Your task to perform on an android device: Open calendar and show me the second week of next month Image 0: 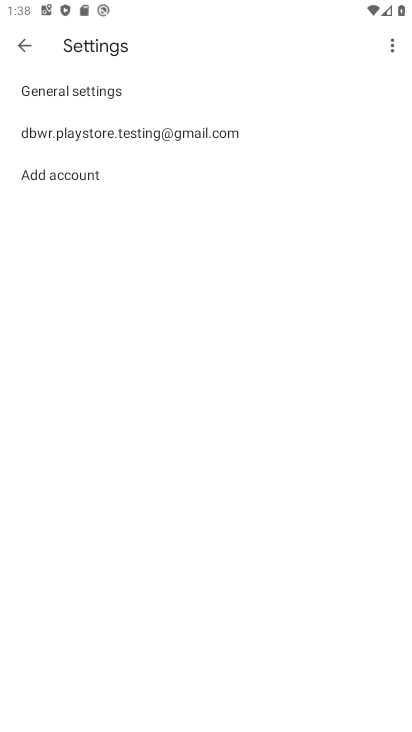
Step 0: press back button
Your task to perform on an android device: Open calendar and show me the second week of next month Image 1: 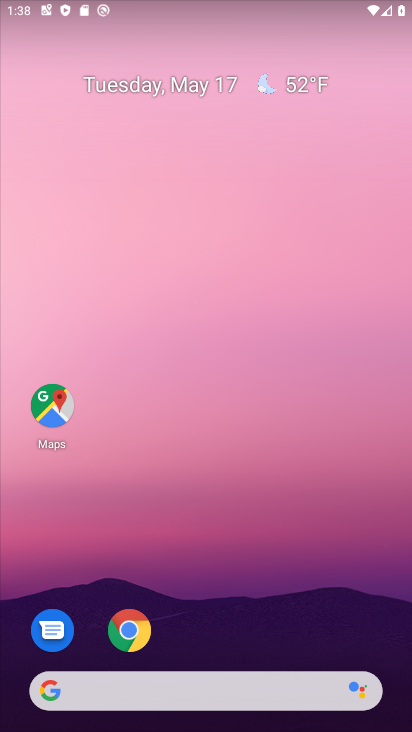
Step 1: drag from (218, 626) to (322, 157)
Your task to perform on an android device: Open calendar and show me the second week of next month Image 2: 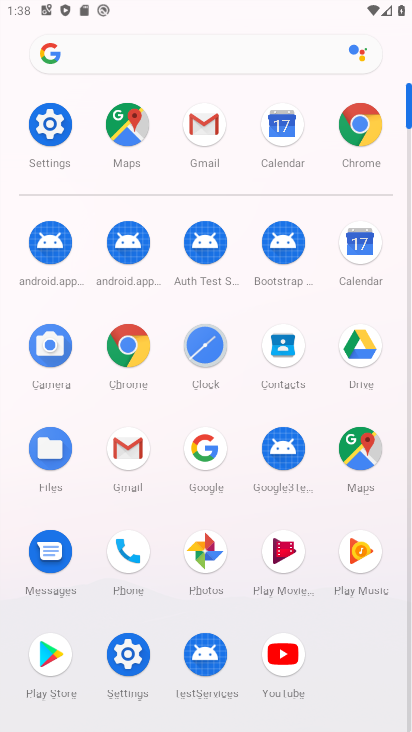
Step 2: click (364, 248)
Your task to perform on an android device: Open calendar and show me the second week of next month Image 3: 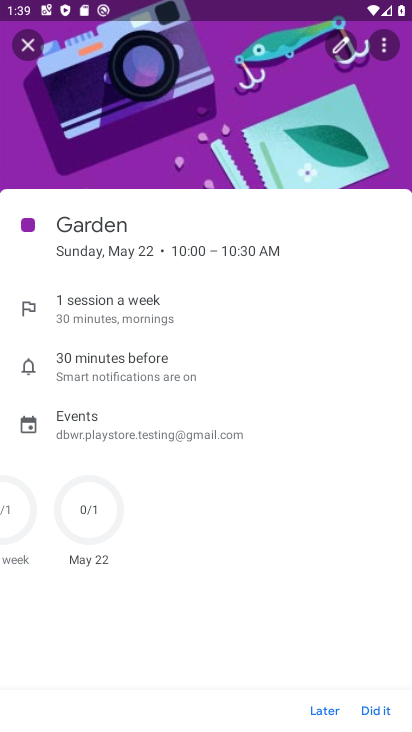
Step 3: click (329, 707)
Your task to perform on an android device: Open calendar and show me the second week of next month Image 4: 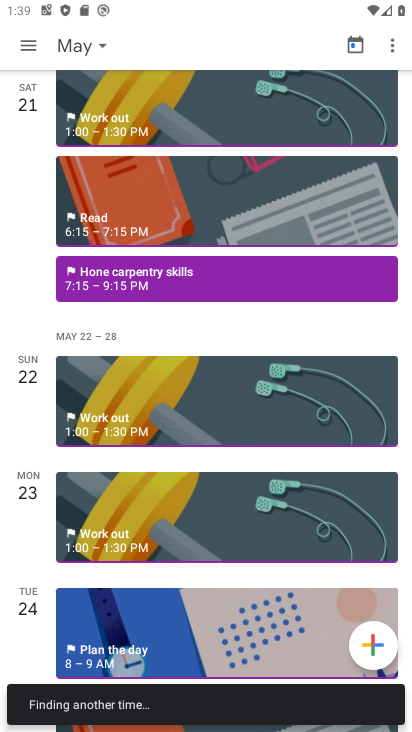
Step 4: click (80, 39)
Your task to perform on an android device: Open calendar and show me the second week of next month Image 5: 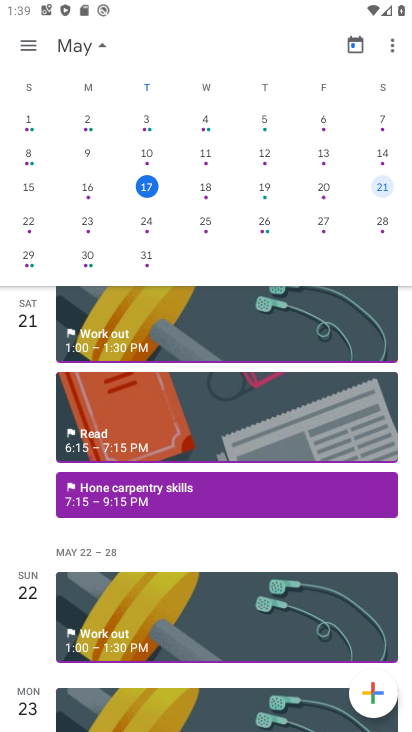
Step 5: drag from (359, 222) to (5, 128)
Your task to perform on an android device: Open calendar and show me the second week of next month Image 6: 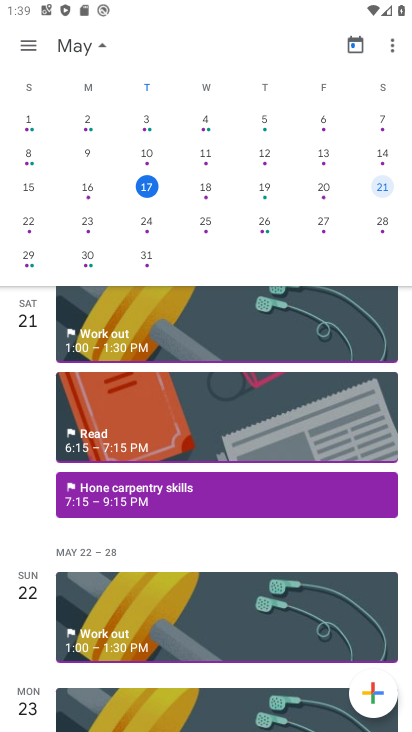
Step 6: drag from (384, 156) to (10, 128)
Your task to perform on an android device: Open calendar and show me the second week of next month Image 7: 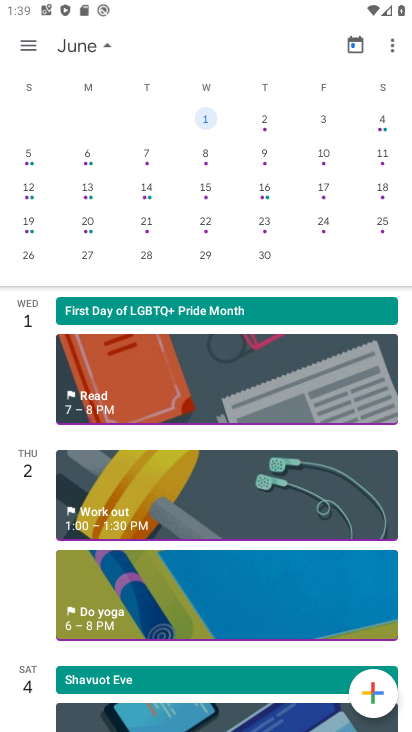
Step 7: click (78, 151)
Your task to perform on an android device: Open calendar and show me the second week of next month Image 8: 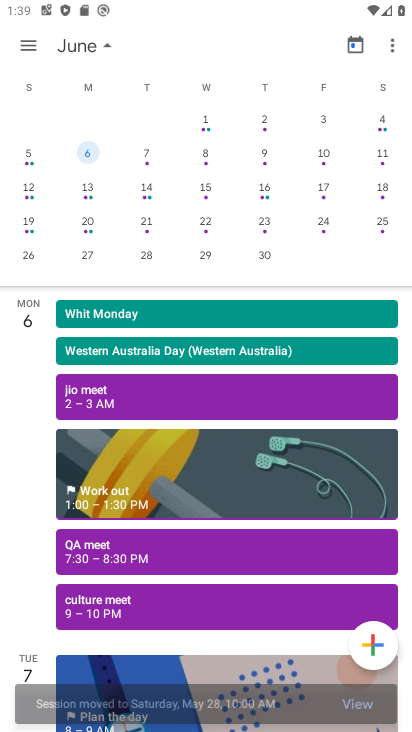
Step 8: task complete